Your task to perform on an android device: turn off location Image 0: 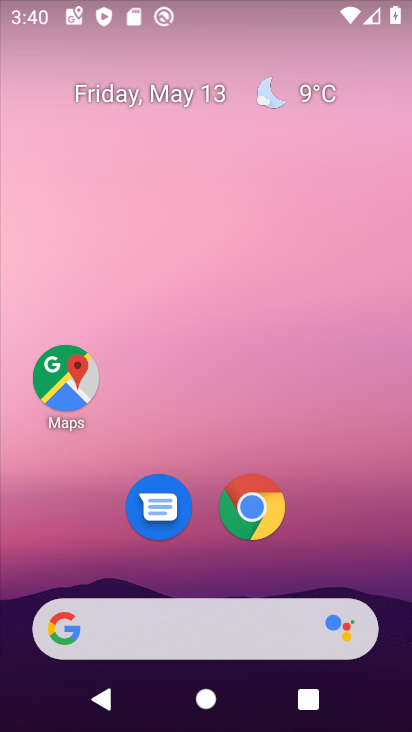
Step 0: drag from (359, 445) to (322, 24)
Your task to perform on an android device: turn off location Image 1: 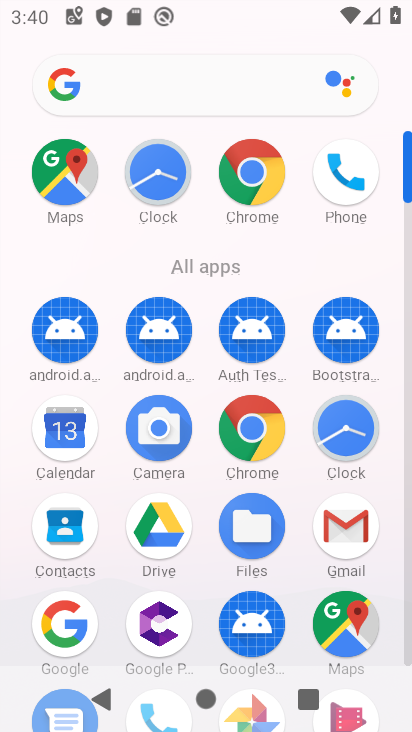
Step 1: drag from (395, 444) to (399, 173)
Your task to perform on an android device: turn off location Image 2: 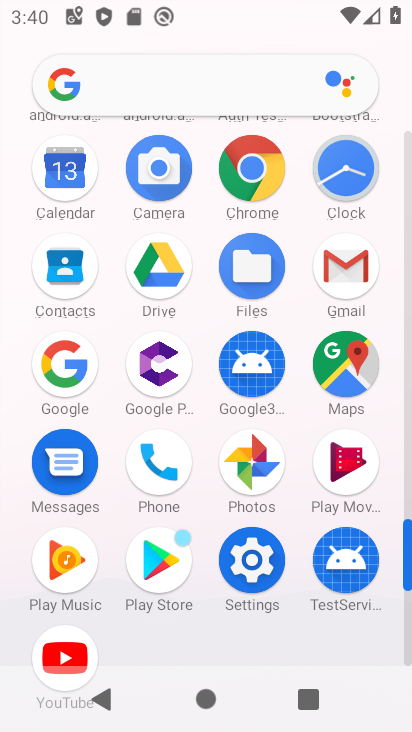
Step 2: click (269, 561)
Your task to perform on an android device: turn off location Image 3: 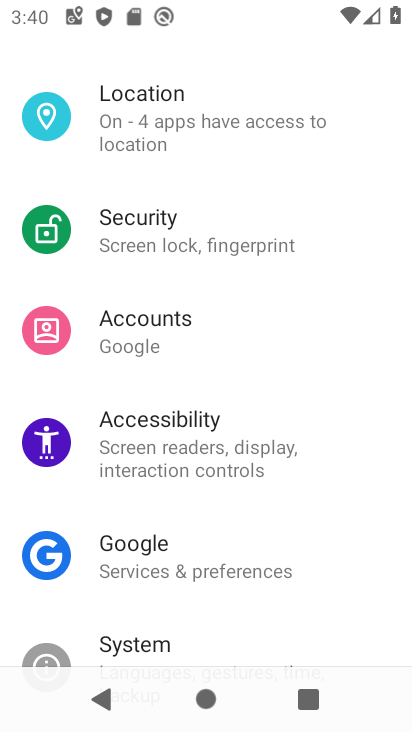
Step 3: drag from (264, 563) to (217, 213)
Your task to perform on an android device: turn off location Image 4: 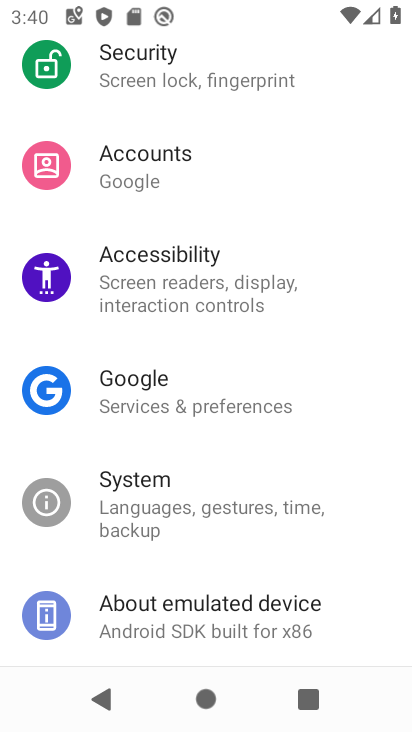
Step 4: drag from (194, 157) to (214, 615)
Your task to perform on an android device: turn off location Image 5: 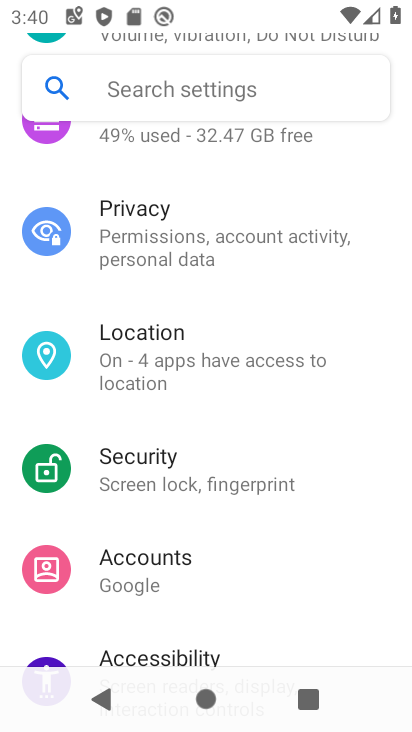
Step 5: click (152, 340)
Your task to perform on an android device: turn off location Image 6: 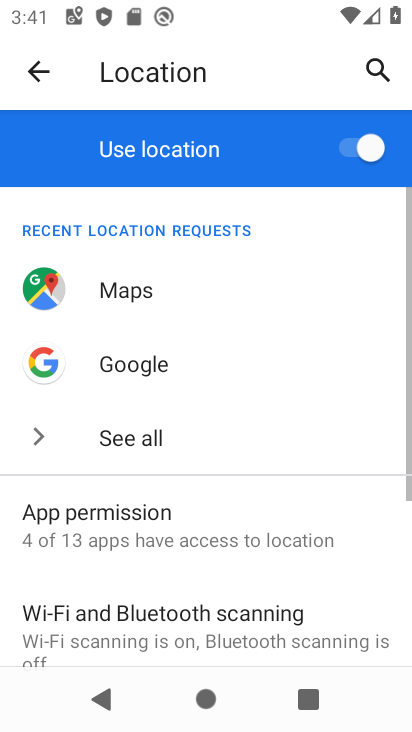
Step 6: click (365, 159)
Your task to perform on an android device: turn off location Image 7: 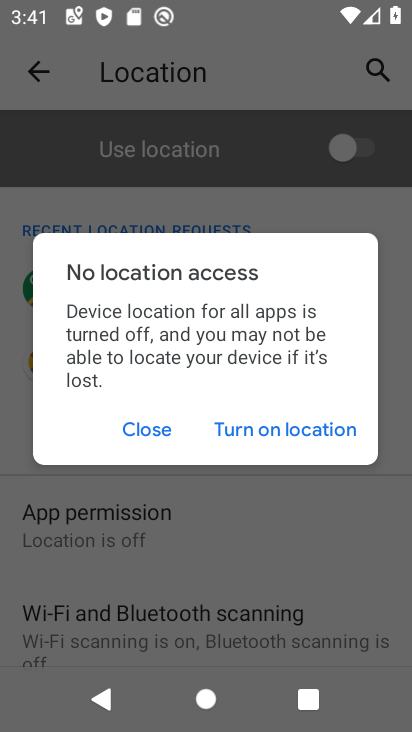
Step 7: task complete